Your task to perform on an android device: Go to Maps Image 0: 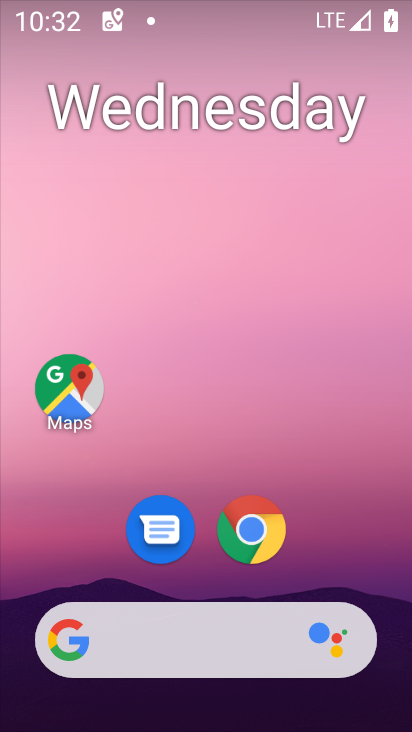
Step 0: click (68, 385)
Your task to perform on an android device: Go to Maps Image 1: 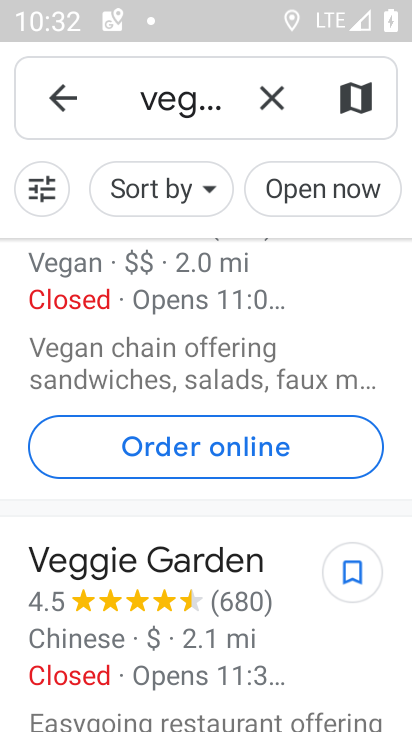
Step 1: click (271, 102)
Your task to perform on an android device: Go to Maps Image 2: 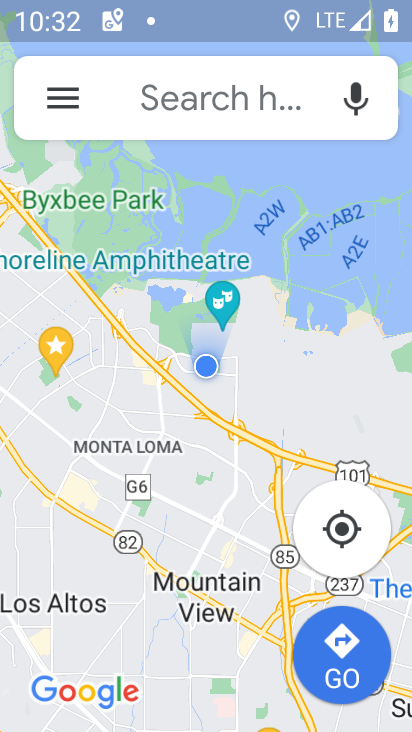
Step 2: task complete